Your task to perform on an android device: all mails in gmail Image 0: 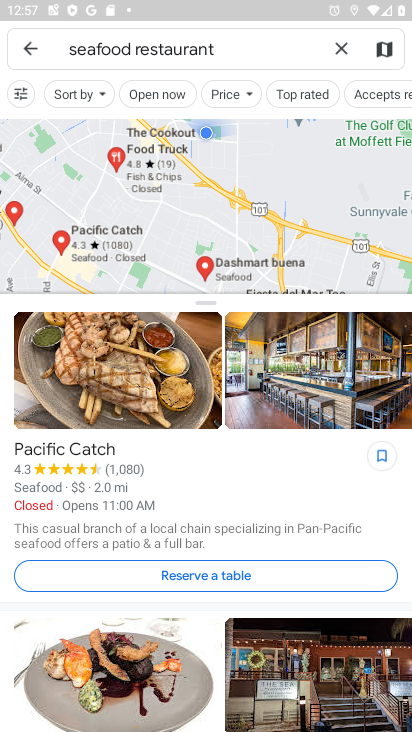
Step 0: click (342, 46)
Your task to perform on an android device: all mails in gmail Image 1: 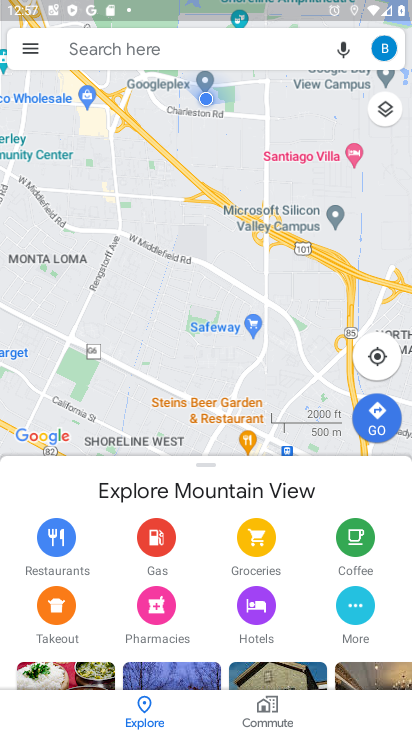
Step 1: click (19, 46)
Your task to perform on an android device: all mails in gmail Image 2: 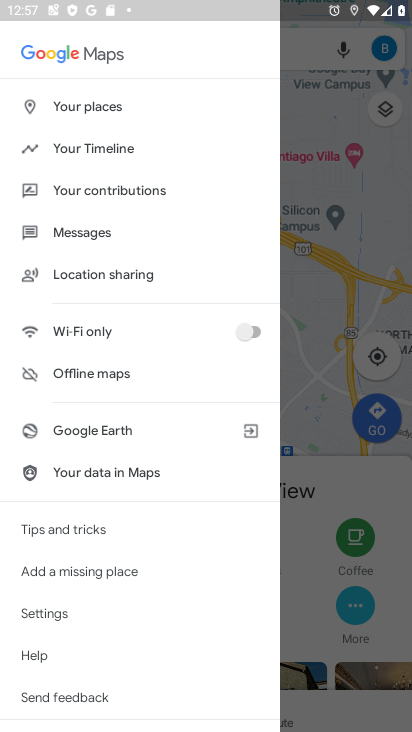
Step 2: press home button
Your task to perform on an android device: all mails in gmail Image 3: 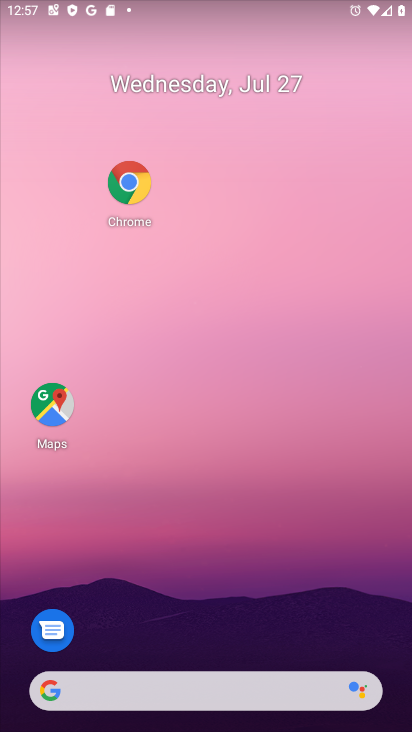
Step 3: drag from (125, 715) to (286, 13)
Your task to perform on an android device: all mails in gmail Image 4: 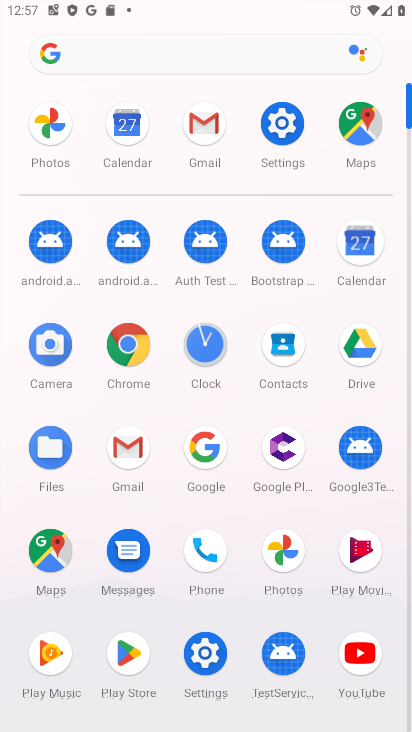
Step 4: click (201, 123)
Your task to perform on an android device: all mails in gmail Image 5: 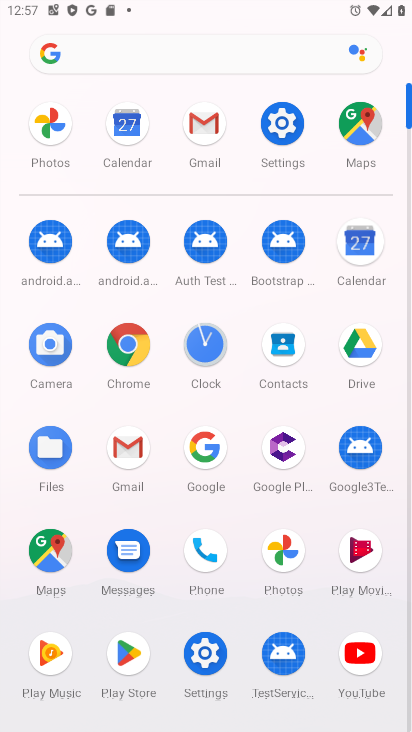
Step 5: click (201, 123)
Your task to perform on an android device: all mails in gmail Image 6: 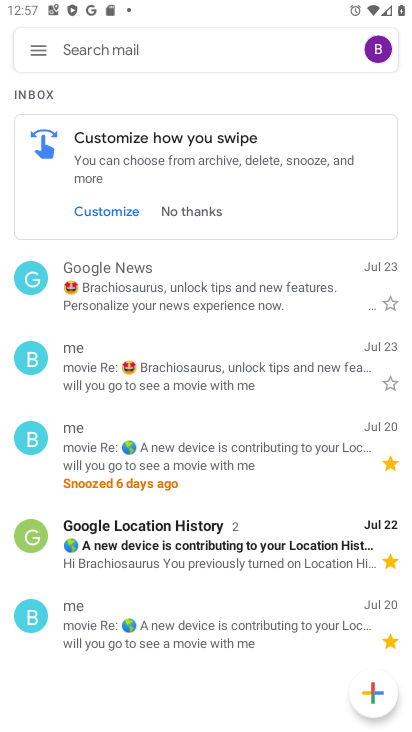
Step 6: click (40, 52)
Your task to perform on an android device: all mails in gmail Image 7: 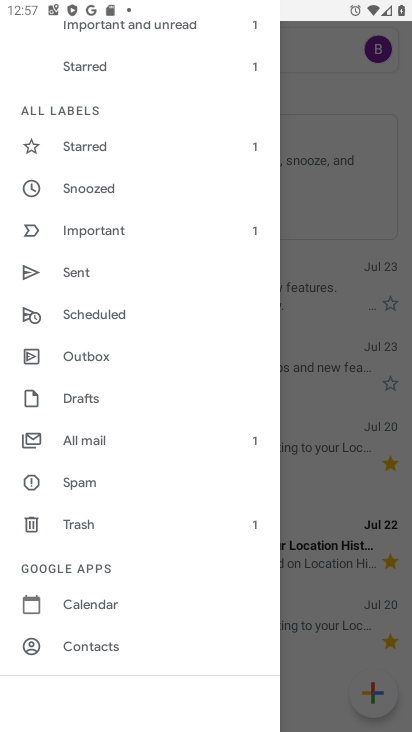
Step 7: click (95, 437)
Your task to perform on an android device: all mails in gmail Image 8: 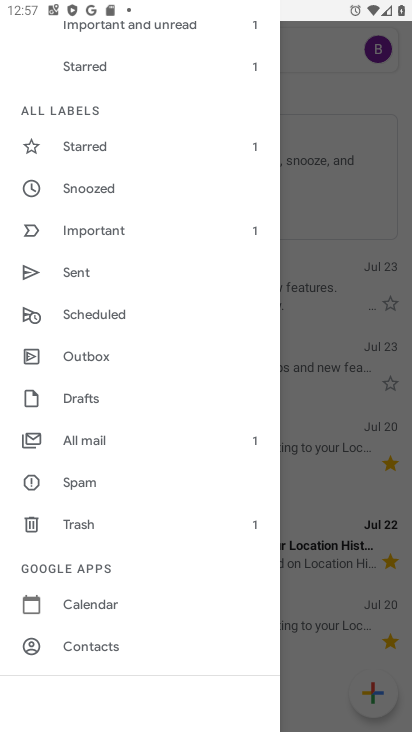
Step 8: click (95, 437)
Your task to perform on an android device: all mails in gmail Image 9: 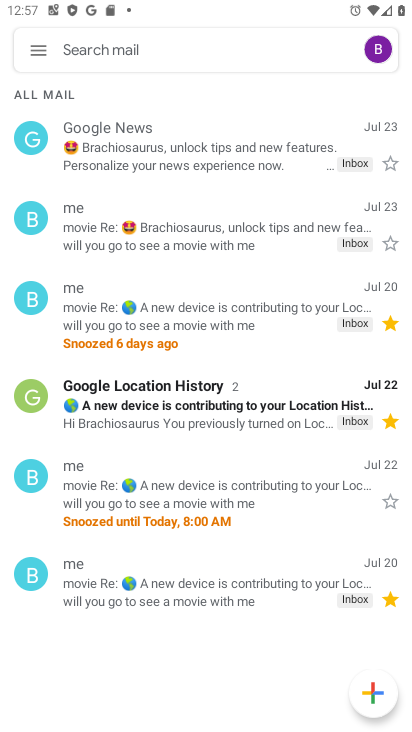
Step 9: task complete